Your task to perform on an android device: toggle notification dots Image 0: 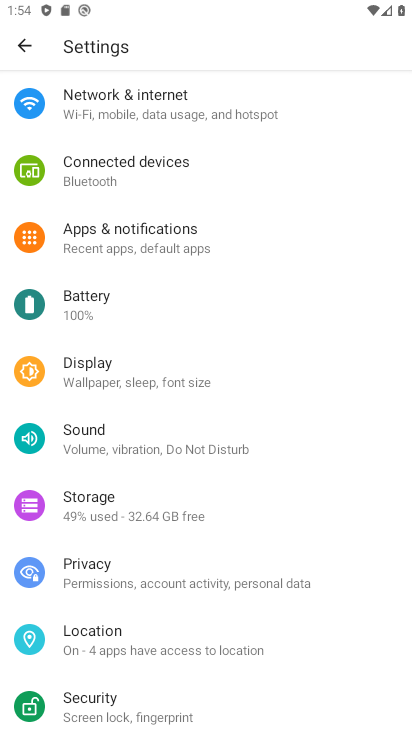
Step 0: click (138, 224)
Your task to perform on an android device: toggle notification dots Image 1: 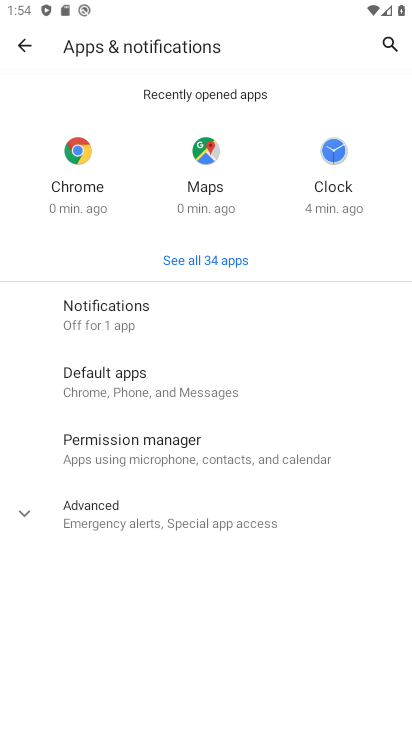
Step 1: click (140, 321)
Your task to perform on an android device: toggle notification dots Image 2: 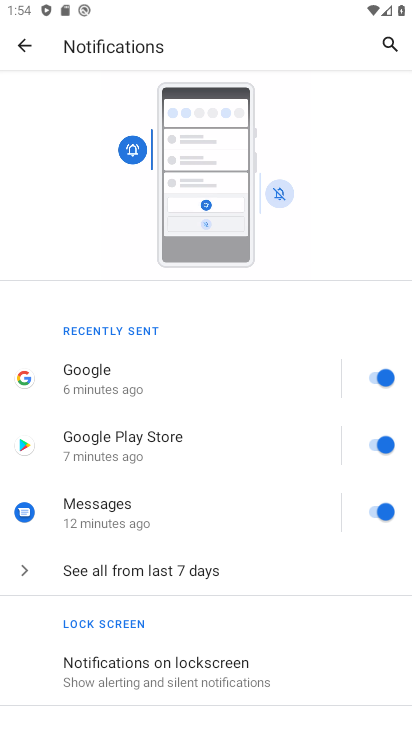
Step 2: drag from (207, 626) to (253, 356)
Your task to perform on an android device: toggle notification dots Image 3: 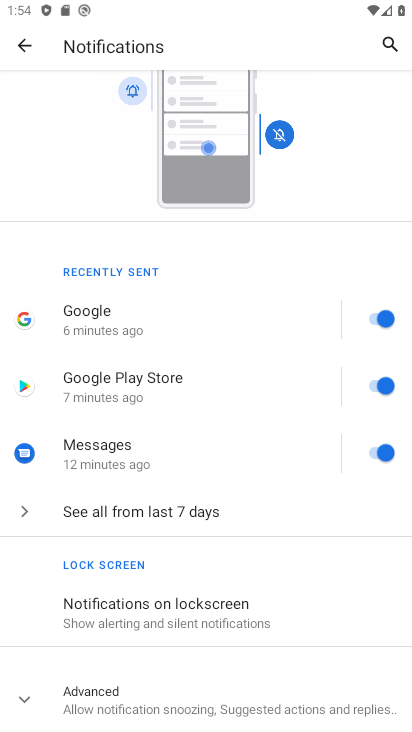
Step 3: click (156, 711)
Your task to perform on an android device: toggle notification dots Image 4: 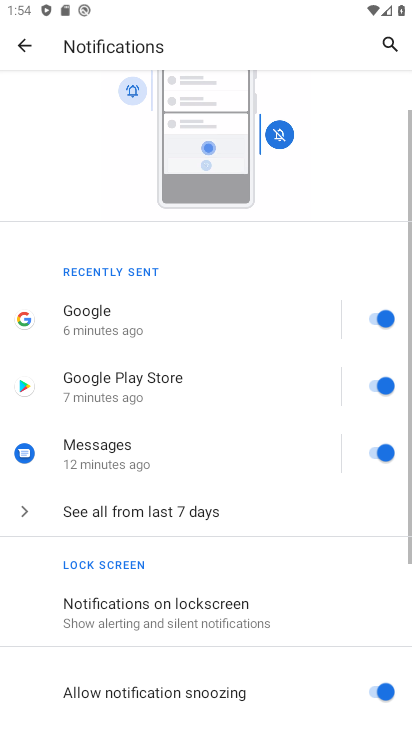
Step 4: drag from (173, 693) to (287, 269)
Your task to perform on an android device: toggle notification dots Image 5: 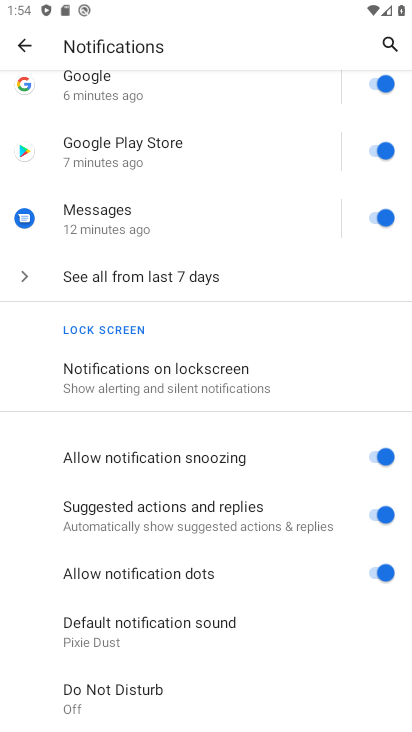
Step 5: click (382, 576)
Your task to perform on an android device: toggle notification dots Image 6: 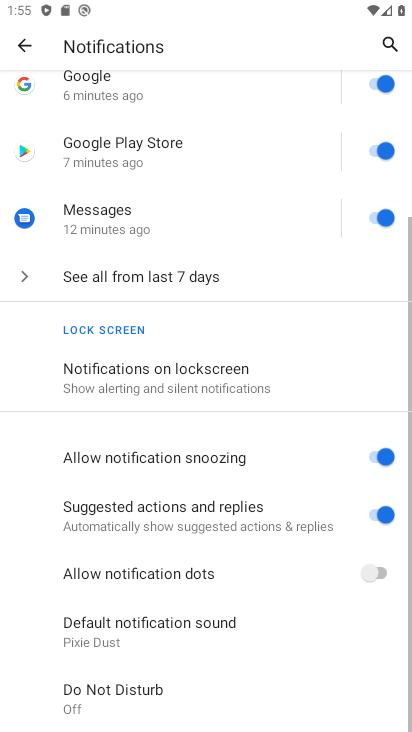
Step 6: task complete